Your task to perform on an android device: Go to network settings Image 0: 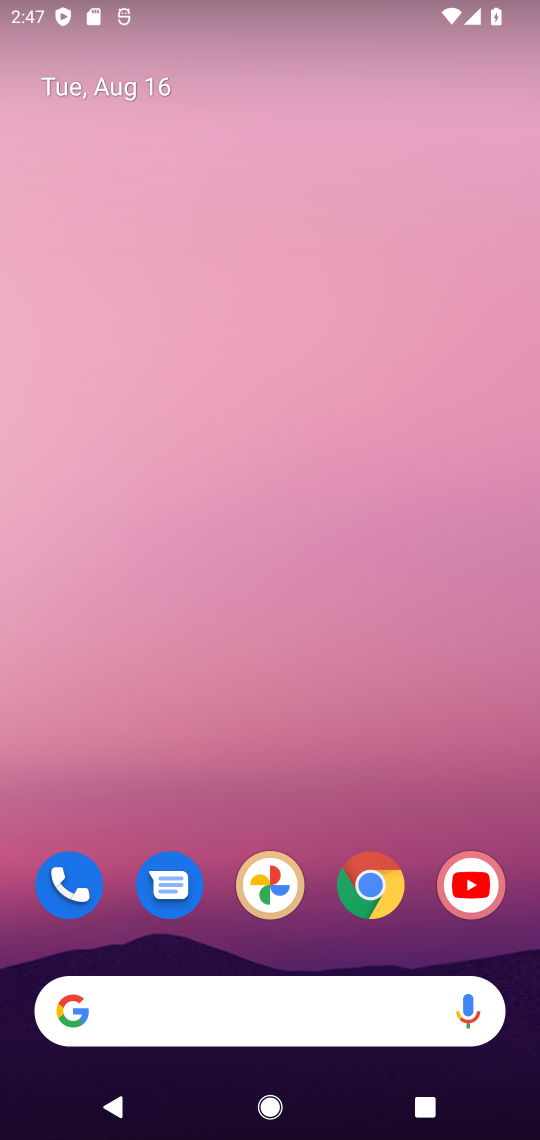
Step 0: click (404, 200)
Your task to perform on an android device: Go to network settings Image 1: 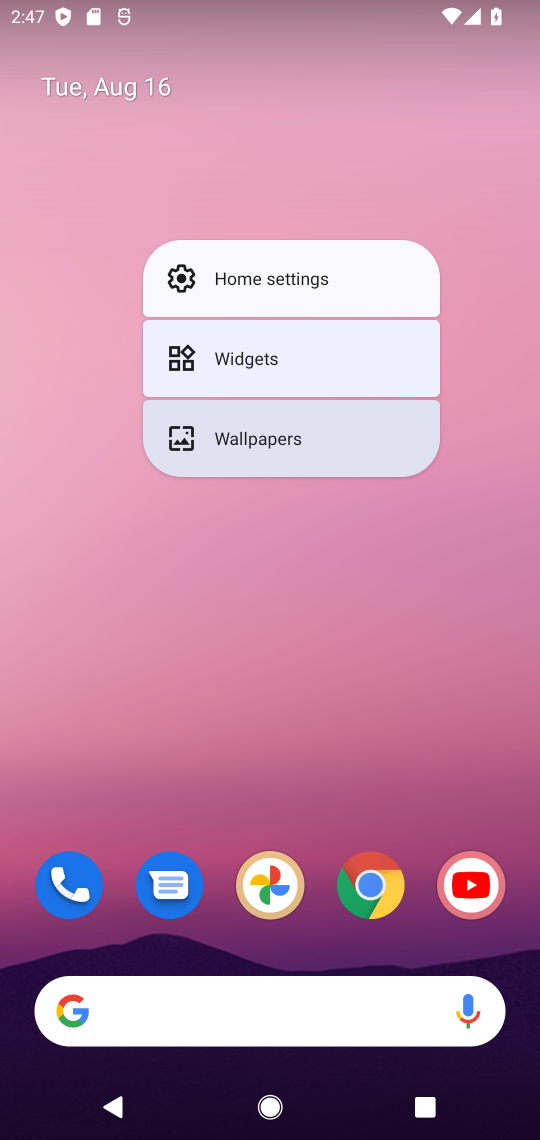
Step 1: click (240, 929)
Your task to perform on an android device: Go to network settings Image 2: 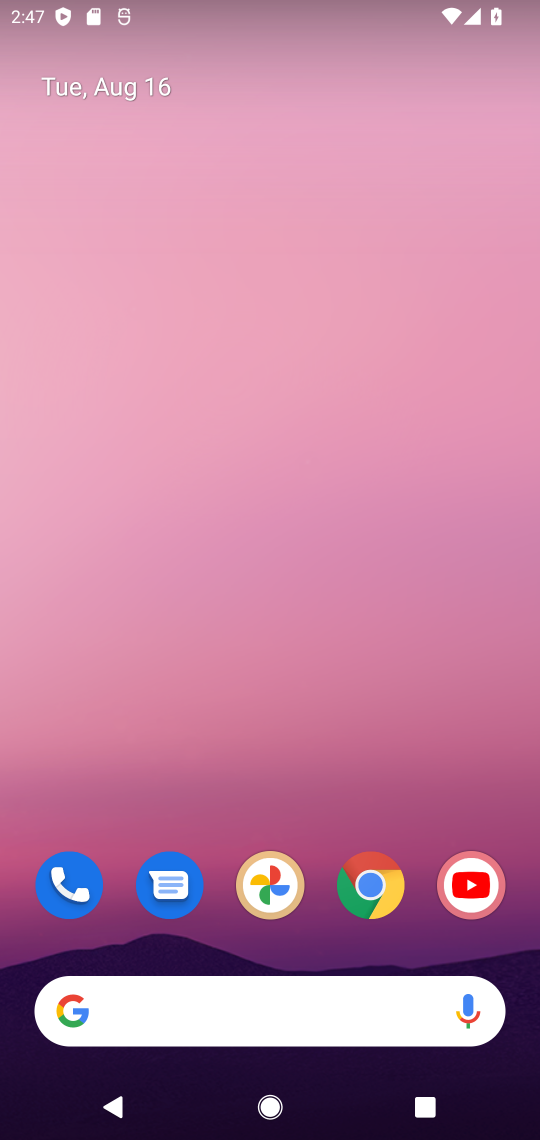
Step 2: drag from (149, 540) to (509, 423)
Your task to perform on an android device: Go to network settings Image 3: 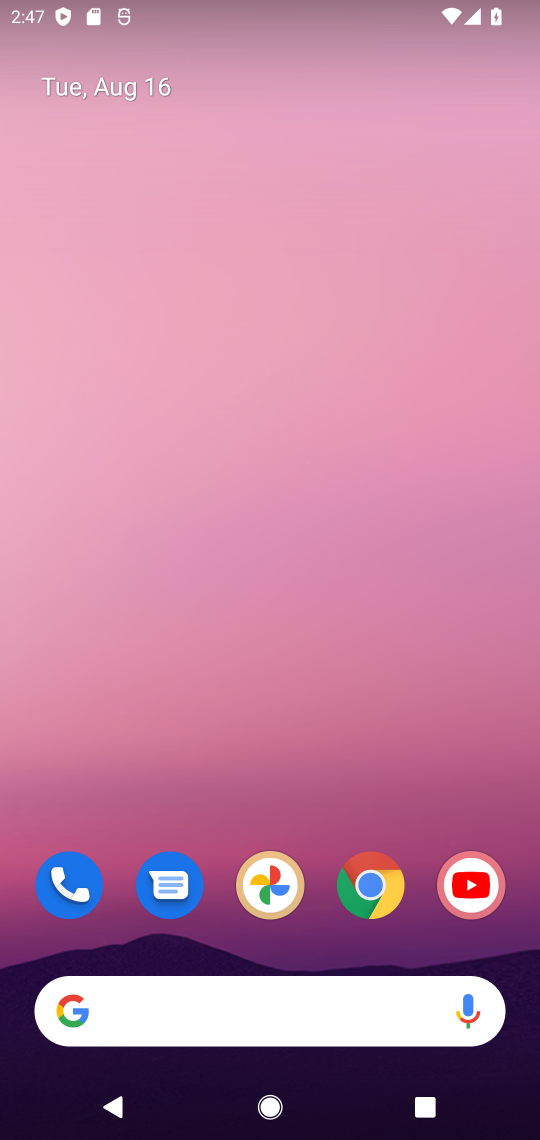
Step 3: drag from (254, 873) to (171, 434)
Your task to perform on an android device: Go to network settings Image 4: 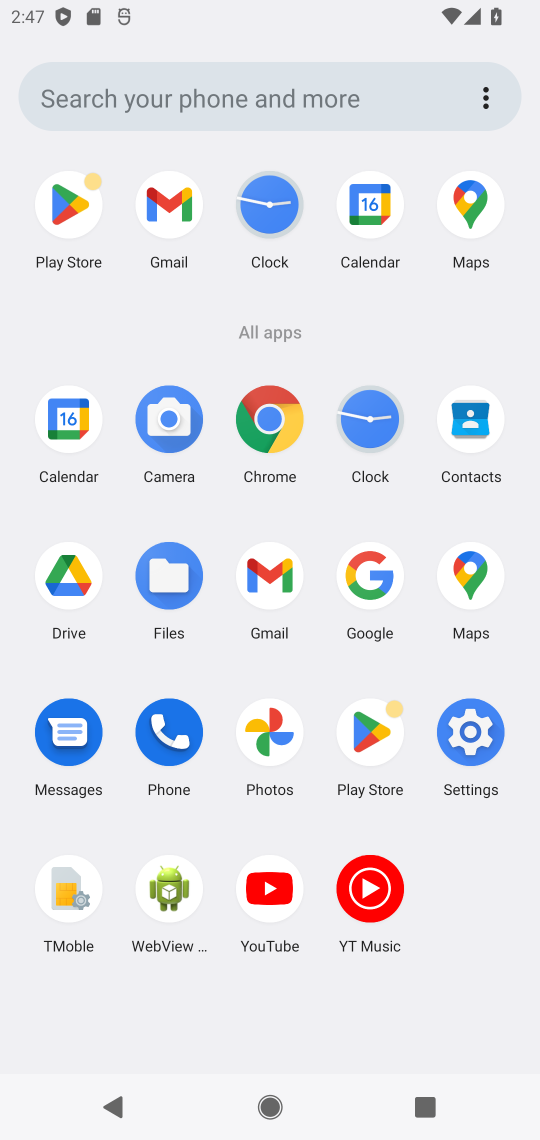
Step 4: click (468, 714)
Your task to perform on an android device: Go to network settings Image 5: 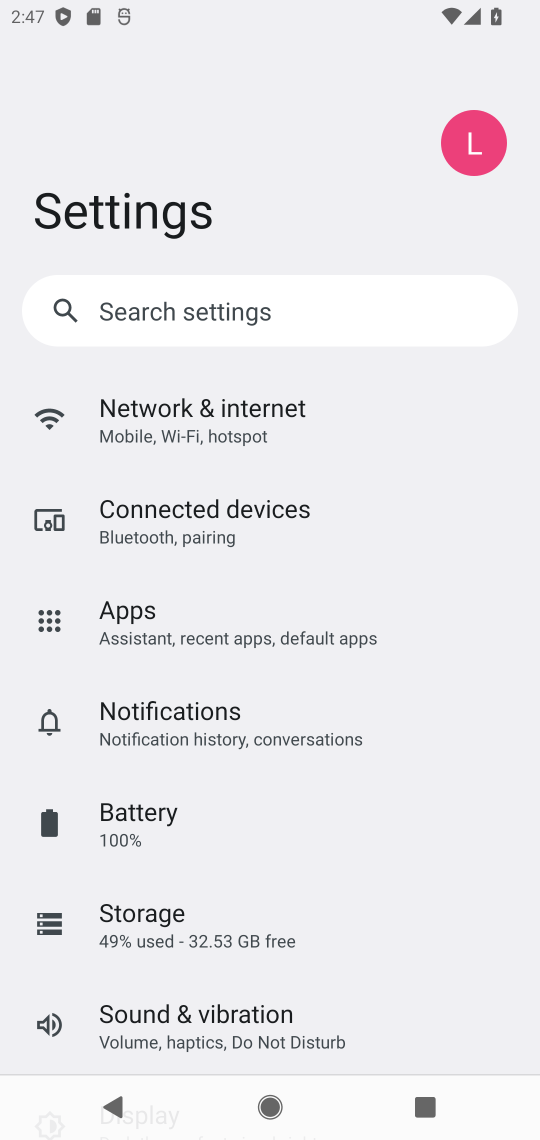
Step 5: click (246, 389)
Your task to perform on an android device: Go to network settings Image 6: 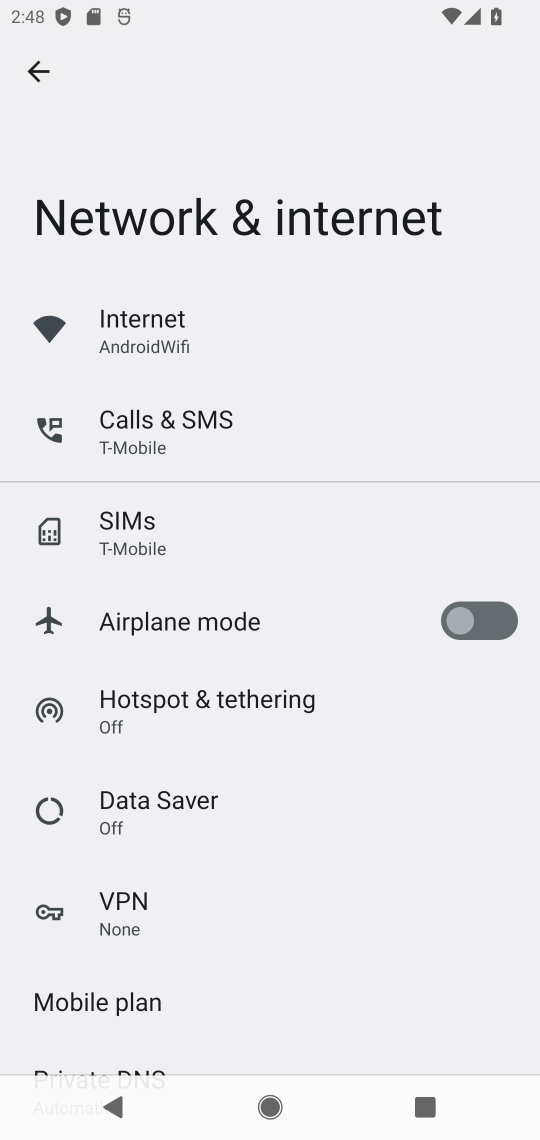
Step 6: task complete